Your task to perform on an android device: turn on location history Image 0: 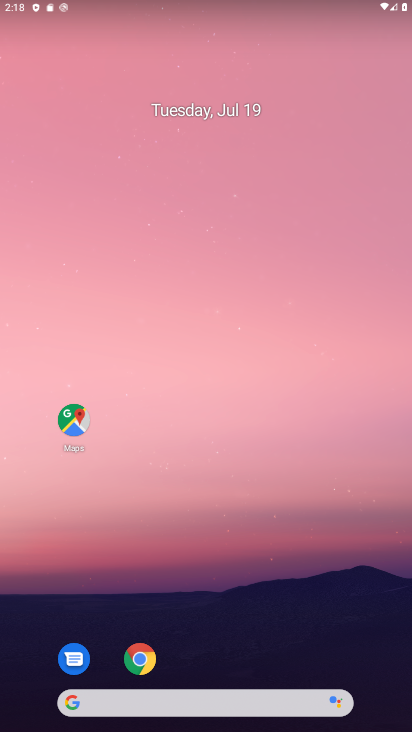
Step 0: drag from (386, 608) to (322, 129)
Your task to perform on an android device: turn on location history Image 1: 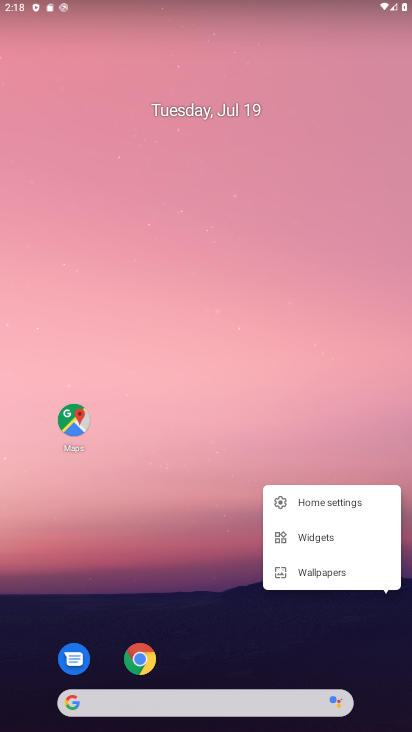
Step 1: click (73, 421)
Your task to perform on an android device: turn on location history Image 2: 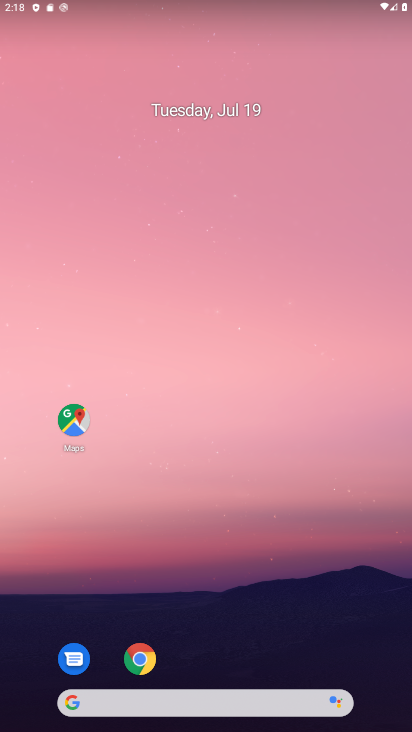
Step 2: click (79, 421)
Your task to perform on an android device: turn on location history Image 3: 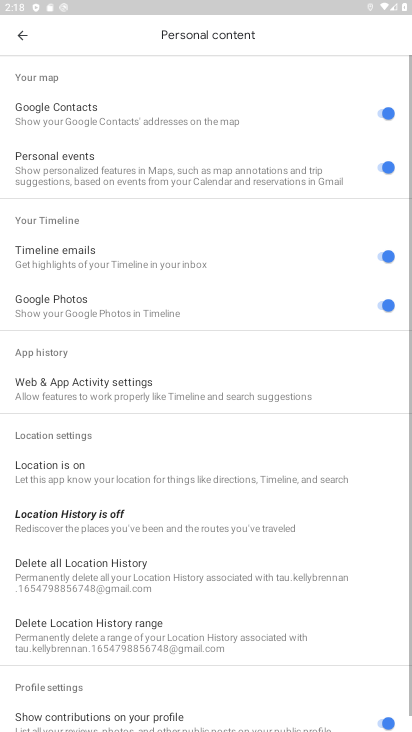
Step 3: click (161, 530)
Your task to perform on an android device: turn on location history Image 4: 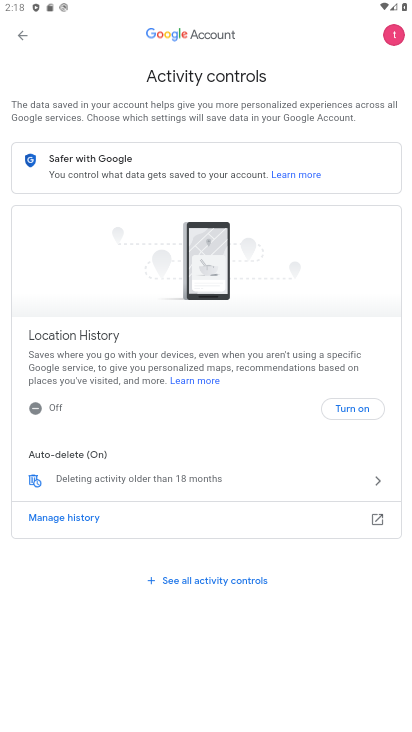
Step 4: click (352, 414)
Your task to perform on an android device: turn on location history Image 5: 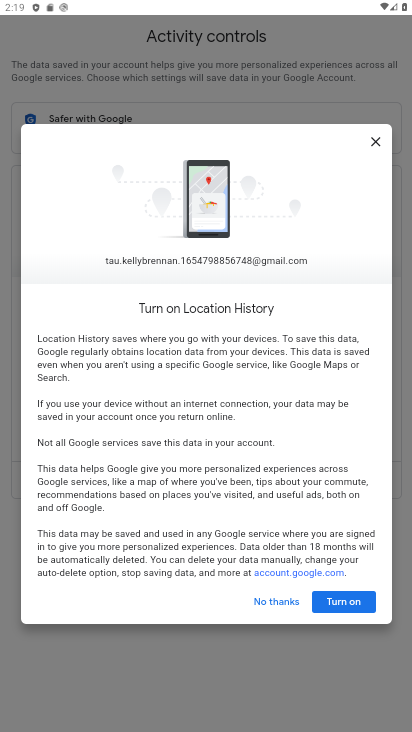
Step 5: click (353, 606)
Your task to perform on an android device: turn on location history Image 6: 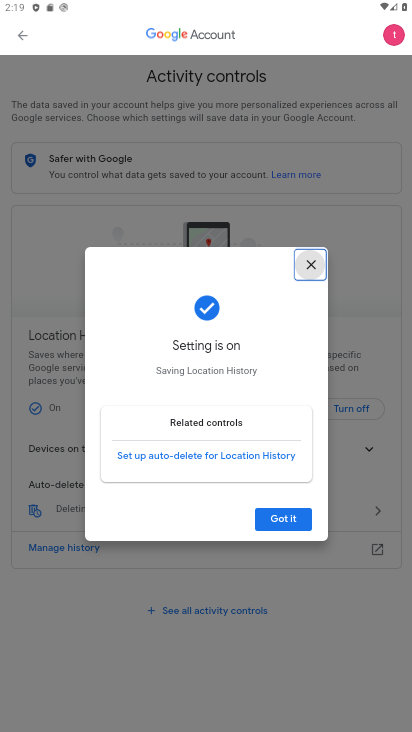
Step 6: click (287, 518)
Your task to perform on an android device: turn on location history Image 7: 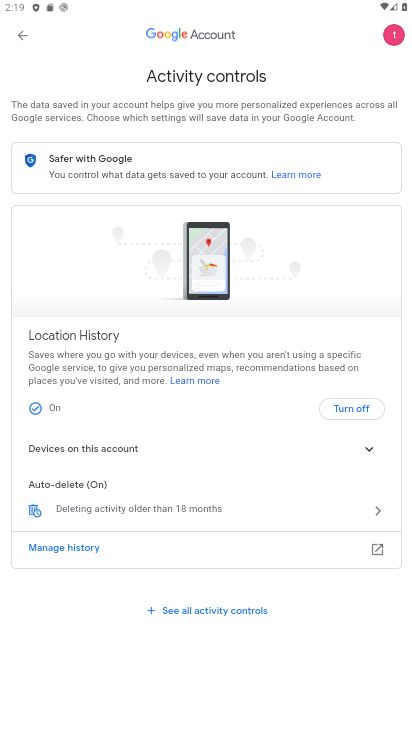
Step 7: task complete